Your task to perform on an android device: Show me productivity apps on the Play Store Image 0: 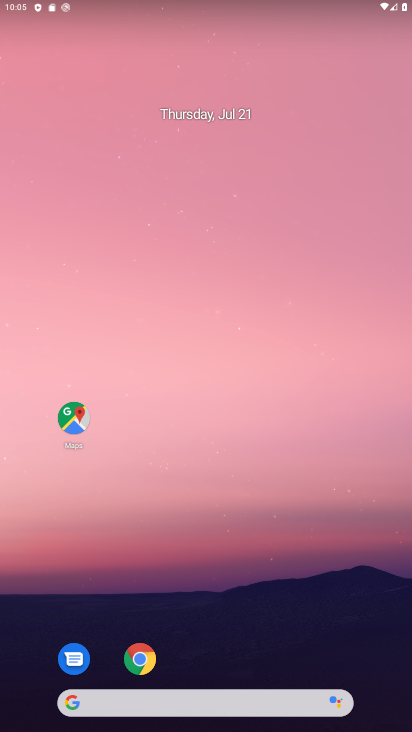
Step 0: drag from (333, 607) to (255, 180)
Your task to perform on an android device: Show me productivity apps on the Play Store Image 1: 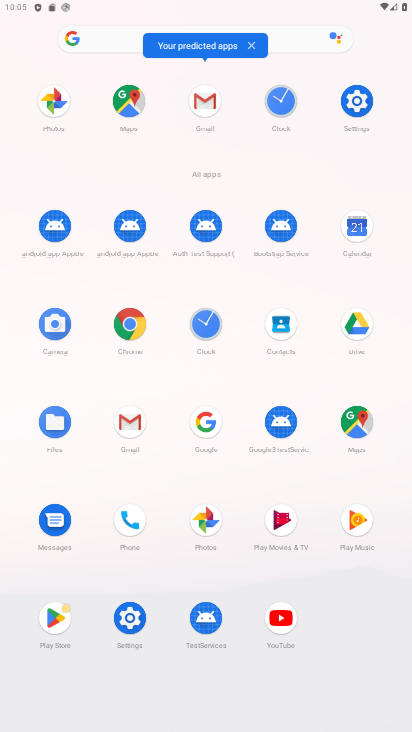
Step 1: click (46, 618)
Your task to perform on an android device: Show me productivity apps on the Play Store Image 2: 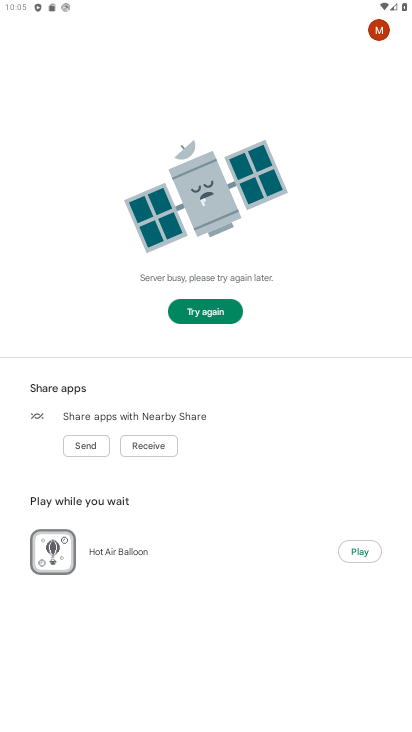
Step 2: task complete